Your task to perform on an android device: turn off picture-in-picture Image 0: 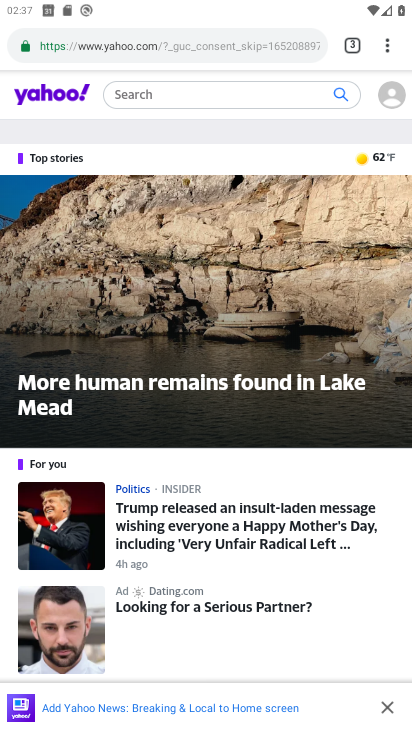
Step 0: press home button
Your task to perform on an android device: turn off picture-in-picture Image 1: 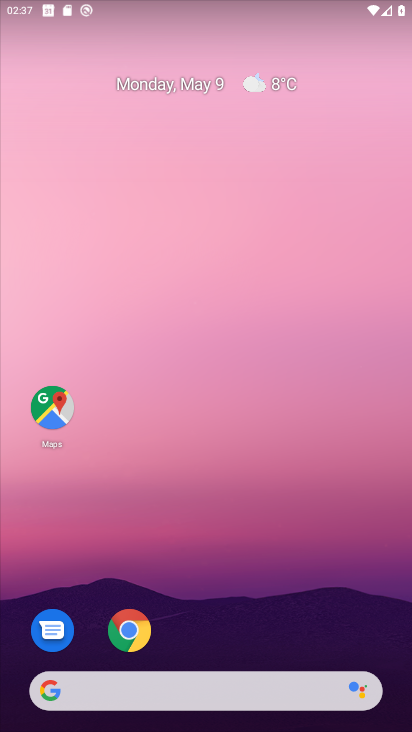
Step 1: click (117, 611)
Your task to perform on an android device: turn off picture-in-picture Image 2: 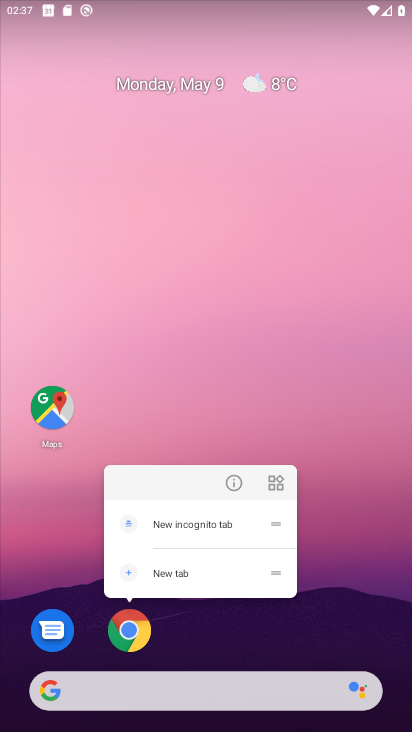
Step 2: click (228, 491)
Your task to perform on an android device: turn off picture-in-picture Image 3: 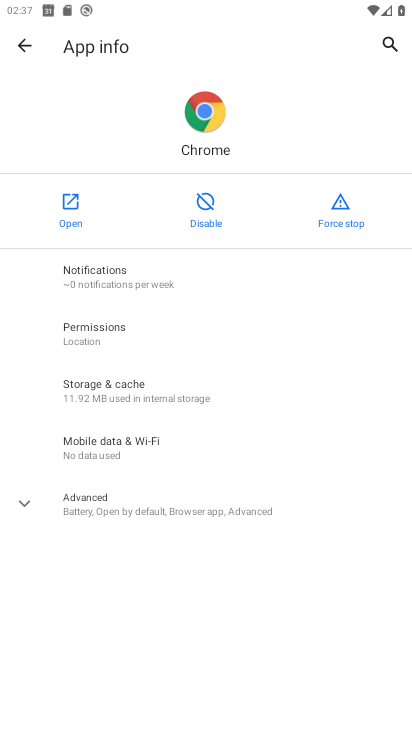
Step 3: click (118, 500)
Your task to perform on an android device: turn off picture-in-picture Image 4: 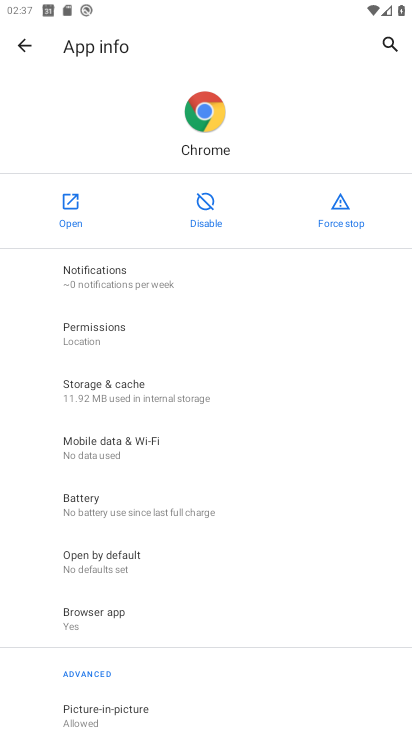
Step 4: drag from (117, 600) to (166, 374)
Your task to perform on an android device: turn off picture-in-picture Image 5: 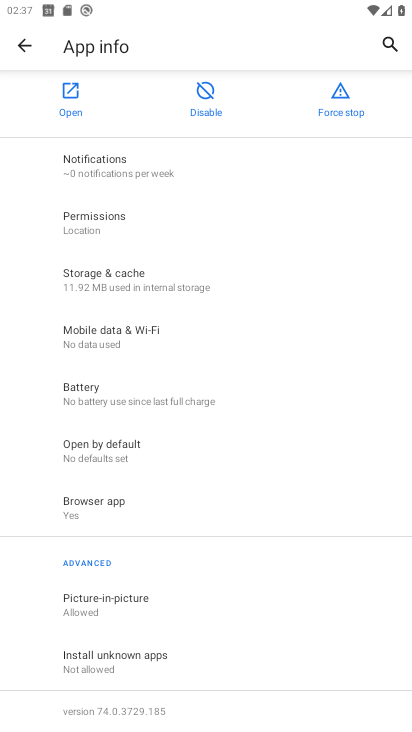
Step 5: click (91, 613)
Your task to perform on an android device: turn off picture-in-picture Image 6: 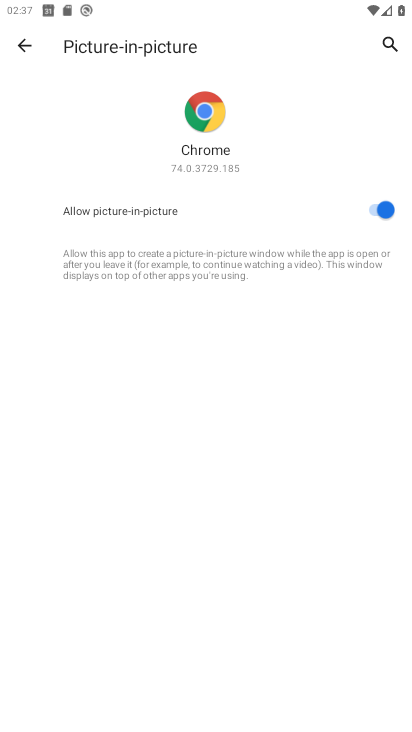
Step 6: click (360, 212)
Your task to perform on an android device: turn off picture-in-picture Image 7: 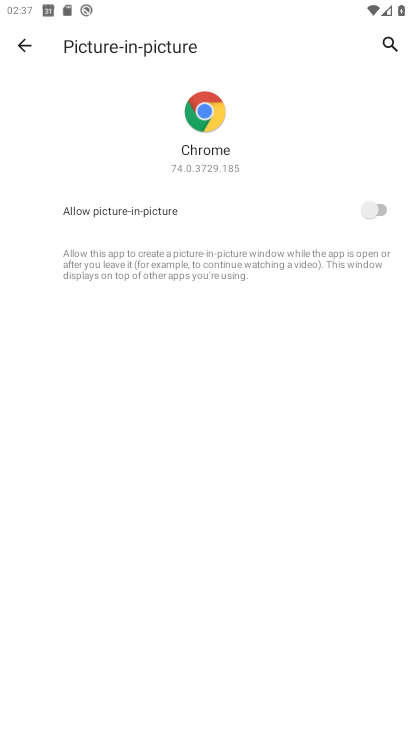
Step 7: task complete